Your task to perform on an android device: Open the map Image 0: 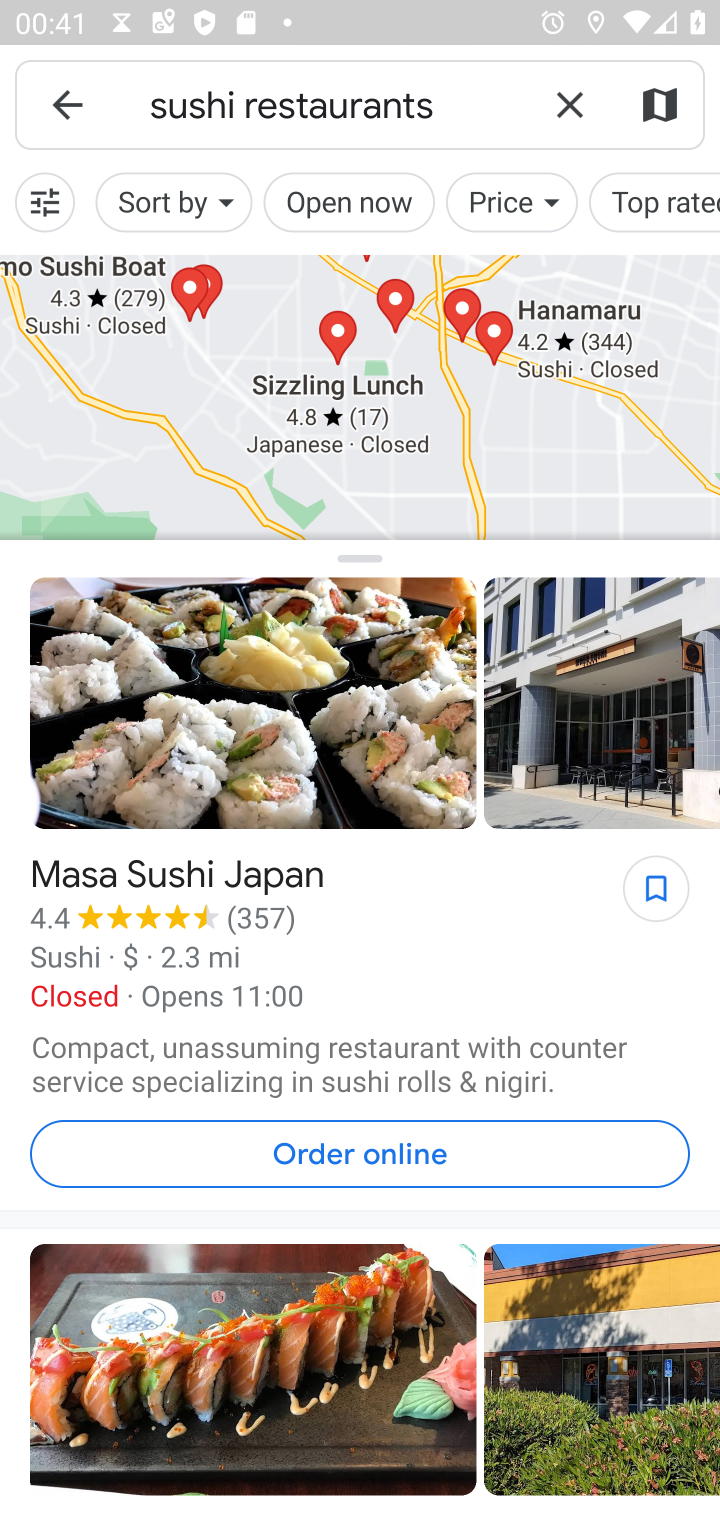
Step 0: press home button
Your task to perform on an android device: Open the map Image 1: 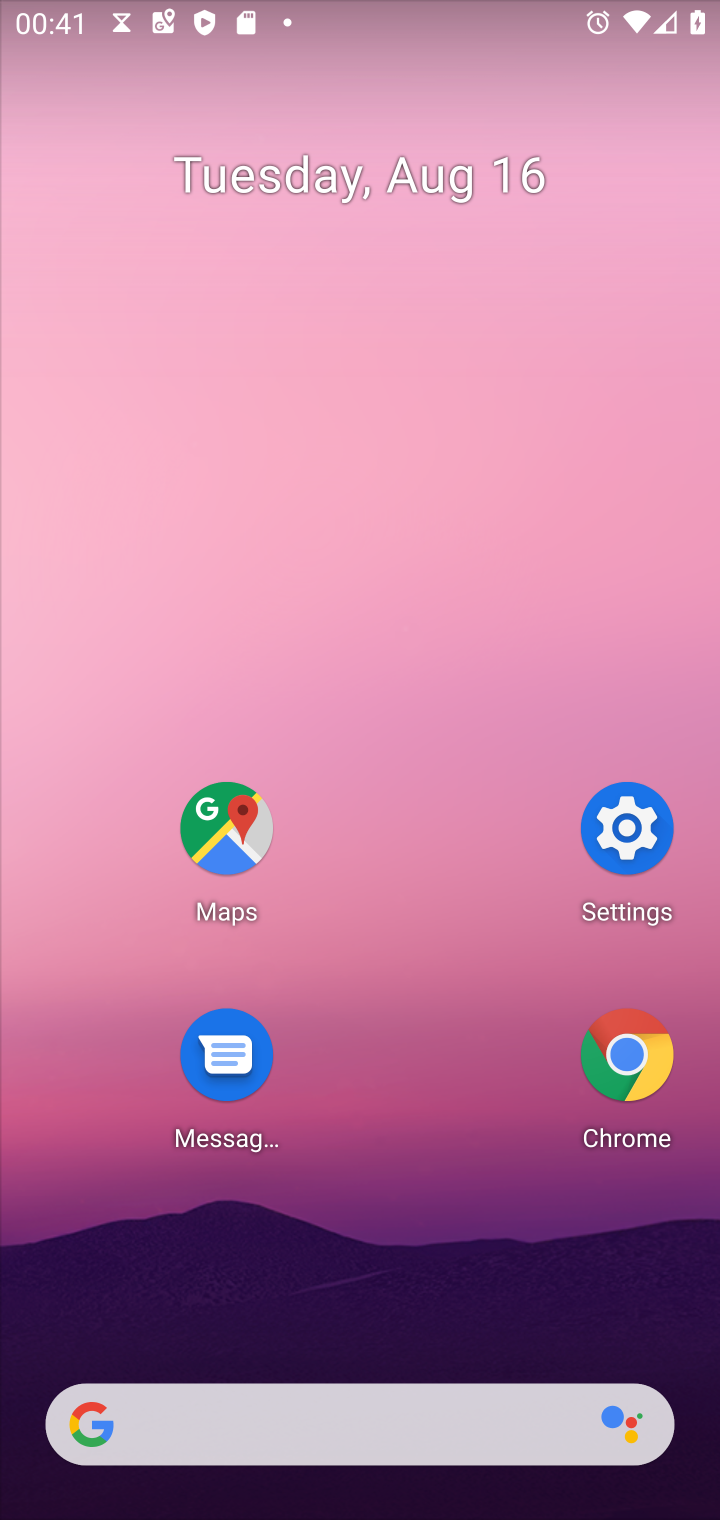
Step 1: click (221, 845)
Your task to perform on an android device: Open the map Image 2: 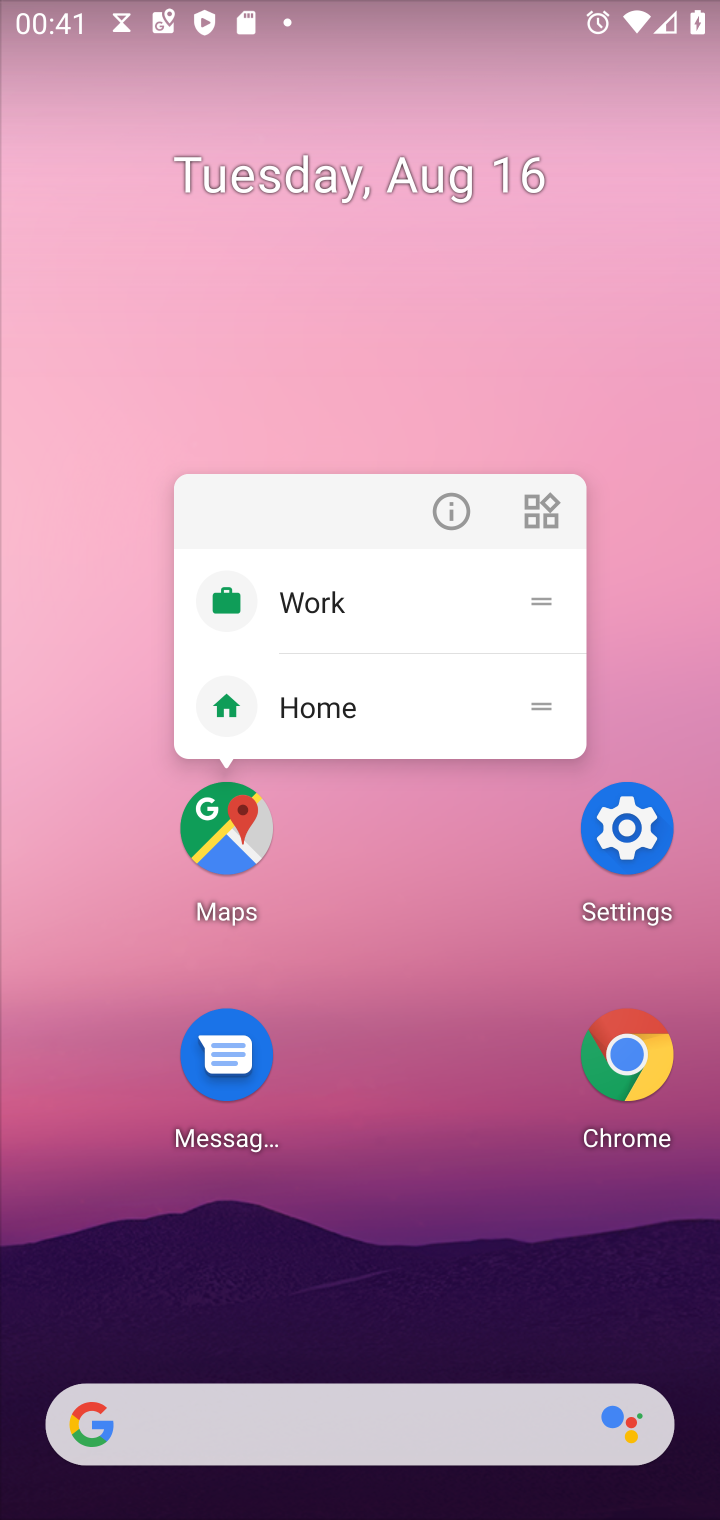
Step 2: click (221, 846)
Your task to perform on an android device: Open the map Image 3: 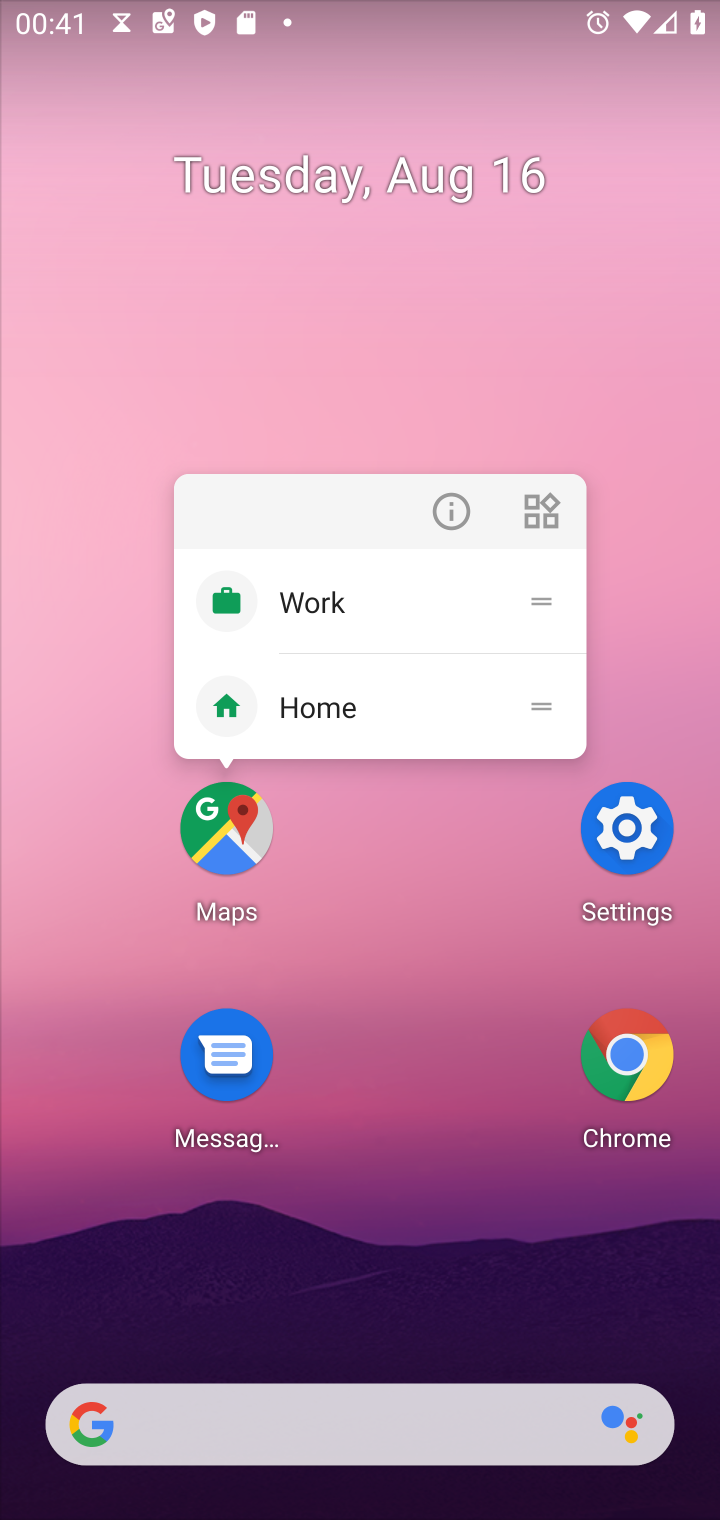
Step 3: click (225, 846)
Your task to perform on an android device: Open the map Image 4: 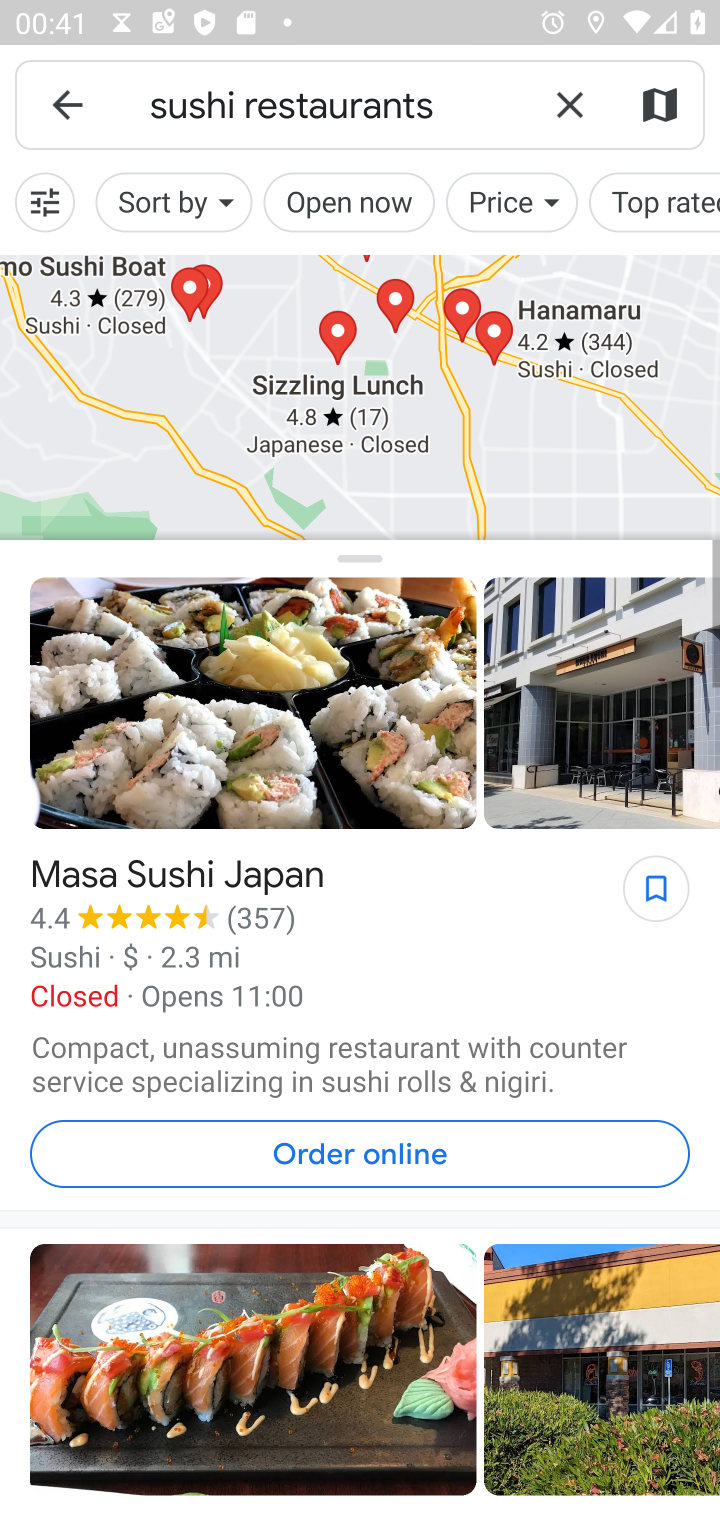
Step 4: click (564, 95)
Your task to perform on an android device: Open the map Image 5: 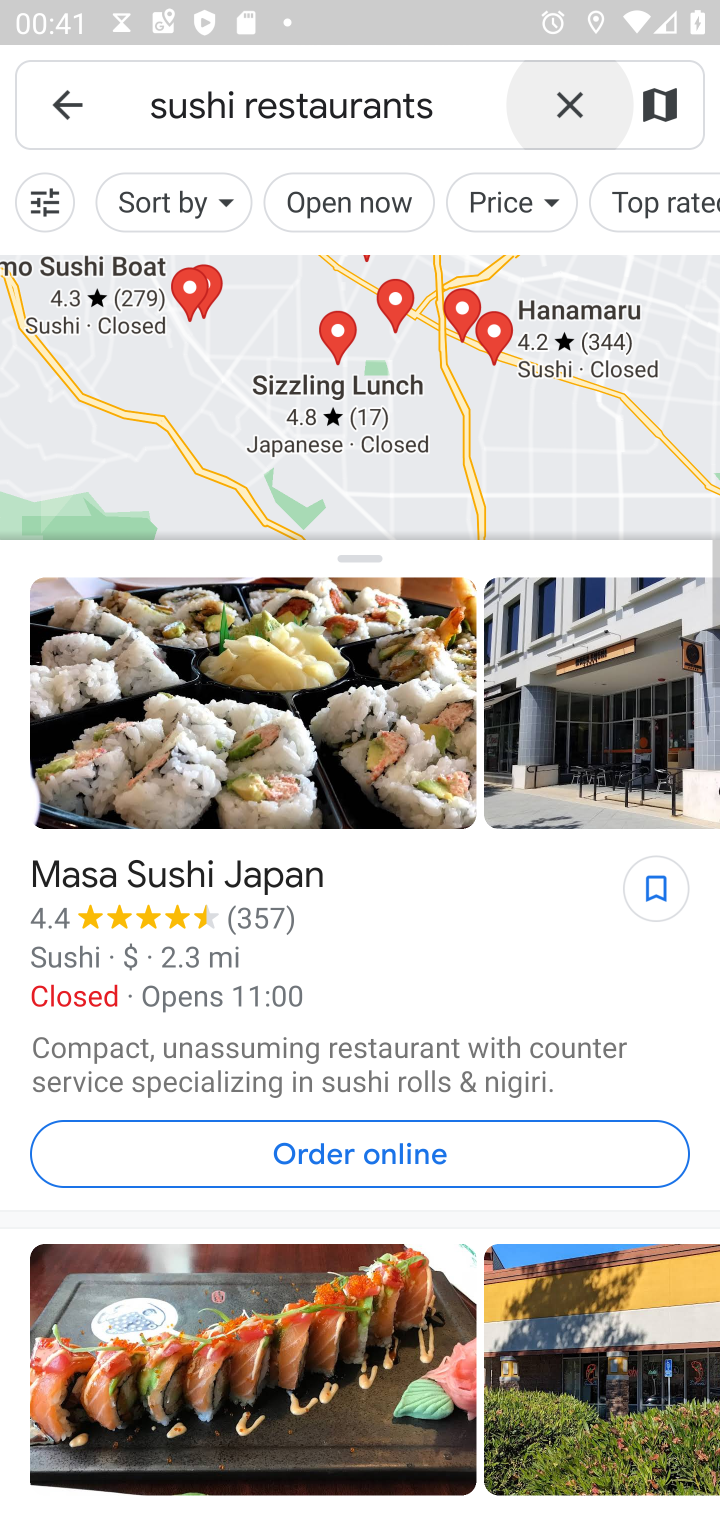
Step 5: press back button
Your task to perform on an android device: Open the map Image 6: 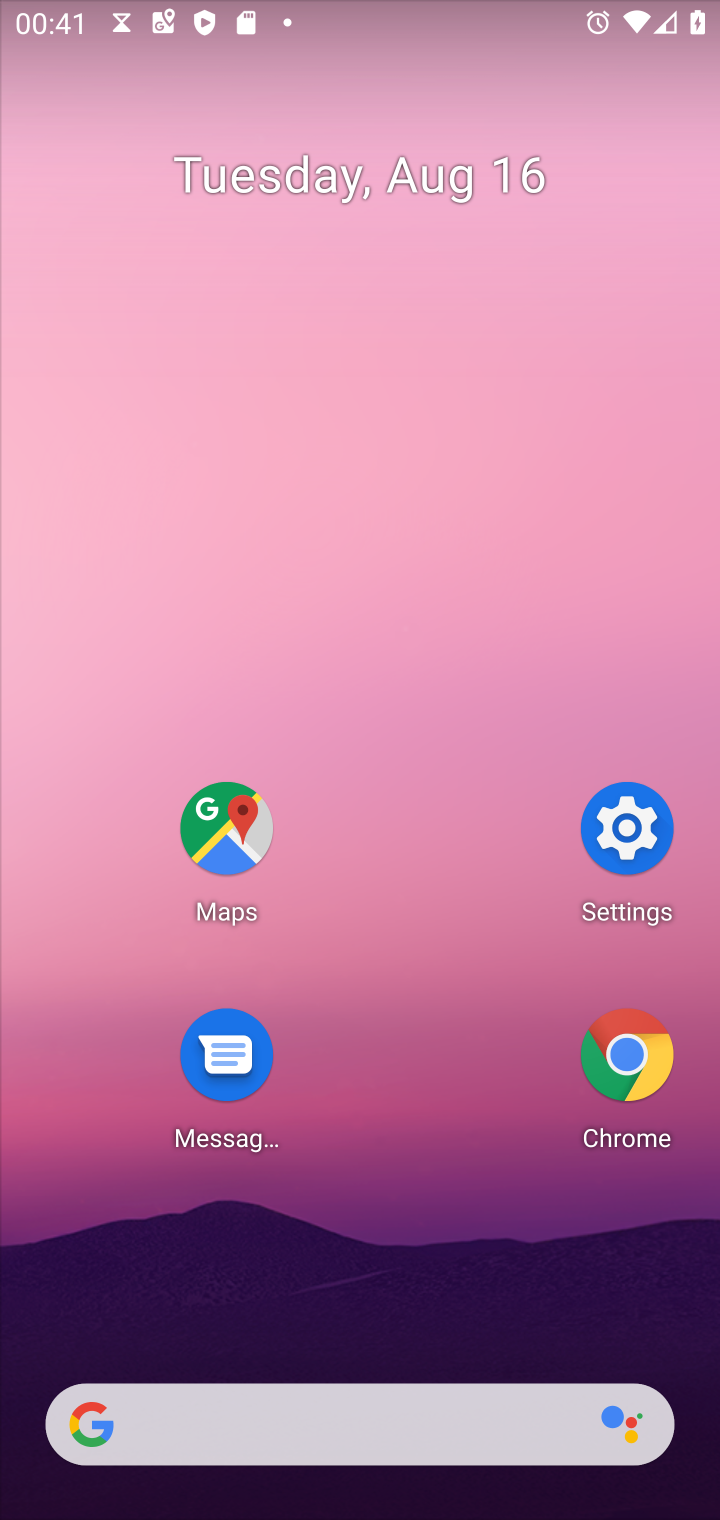
Step 6: click (236, 829)
Your task to perform on an android device: Open the map Image 7: 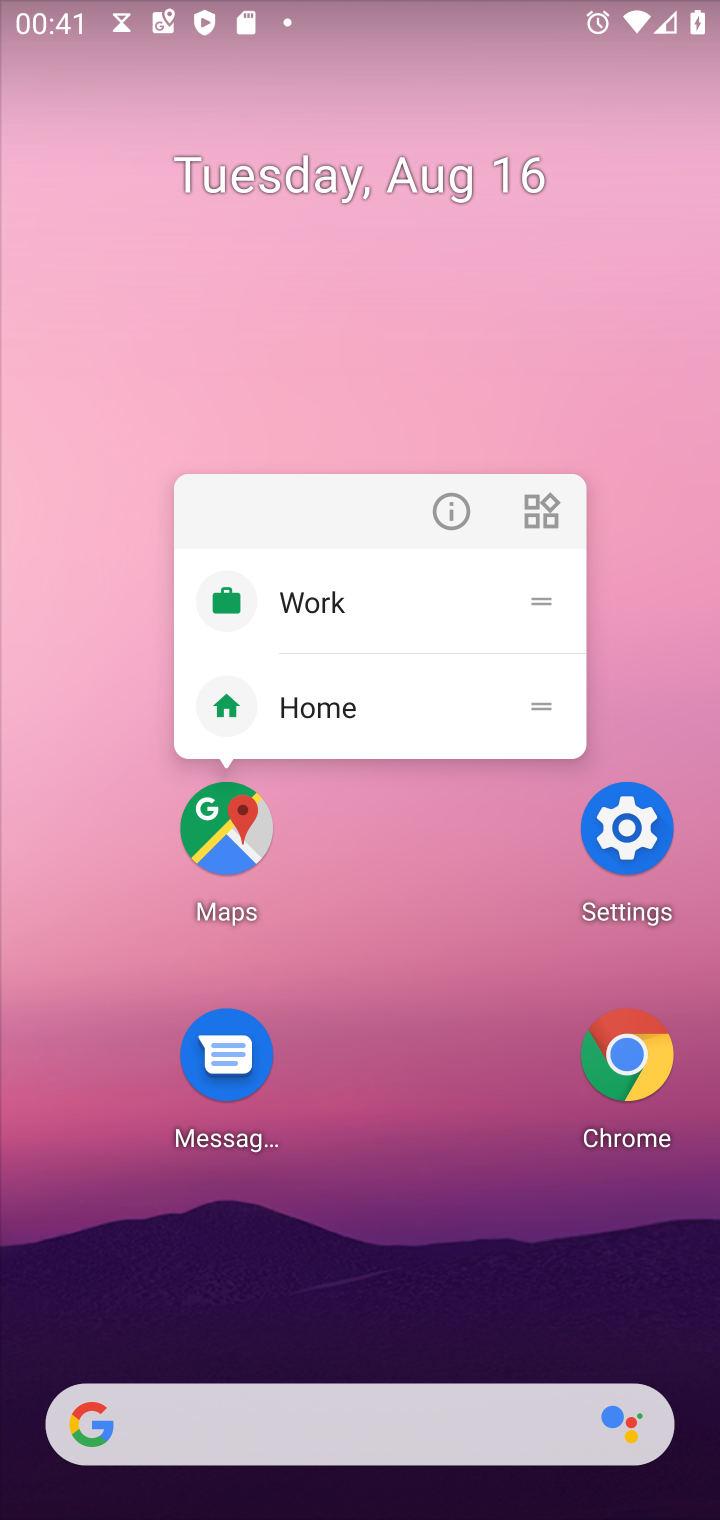
Step 7: click (251, 842)
Your task to perform on an android device: Open the map Image 8: 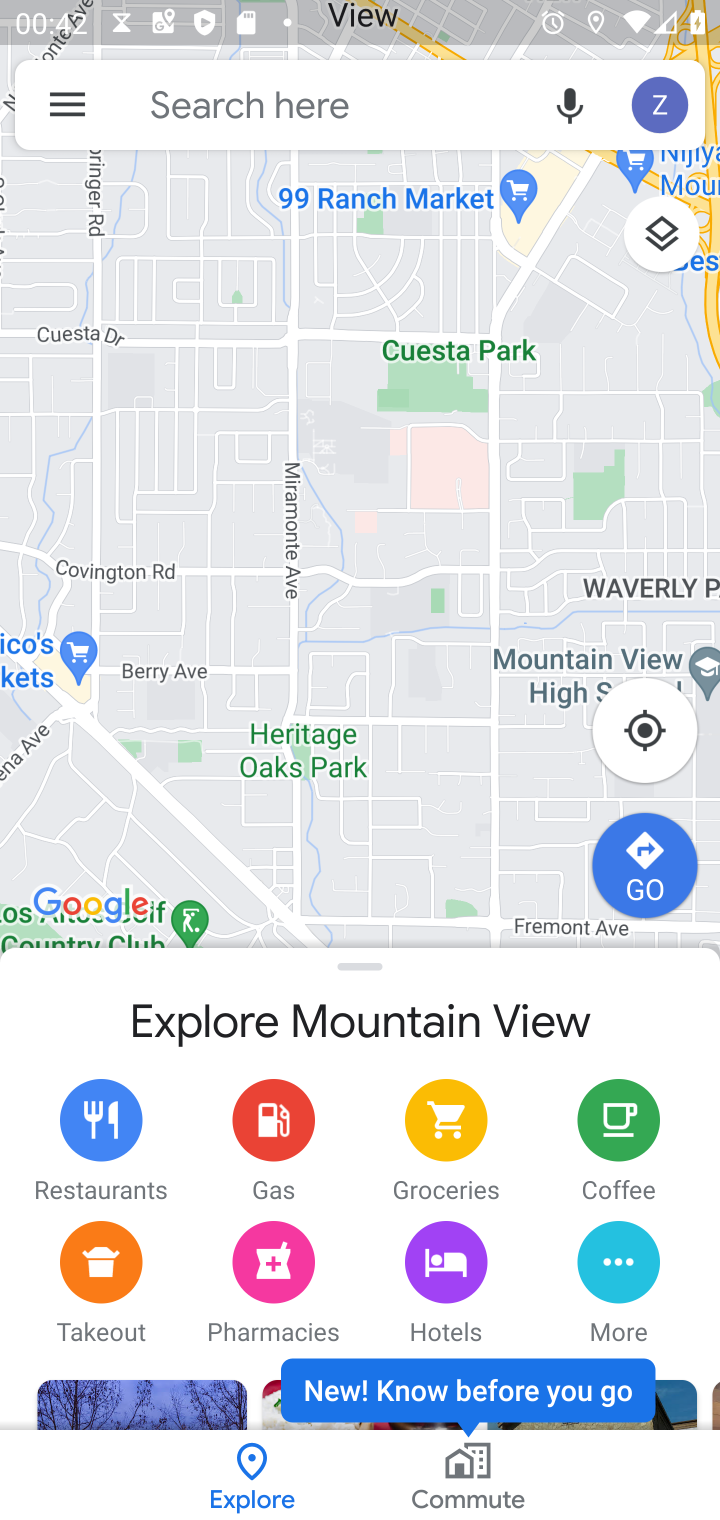
Step 8: task complete